Your task to perform on an android device: change the clock display to digital Image 0: 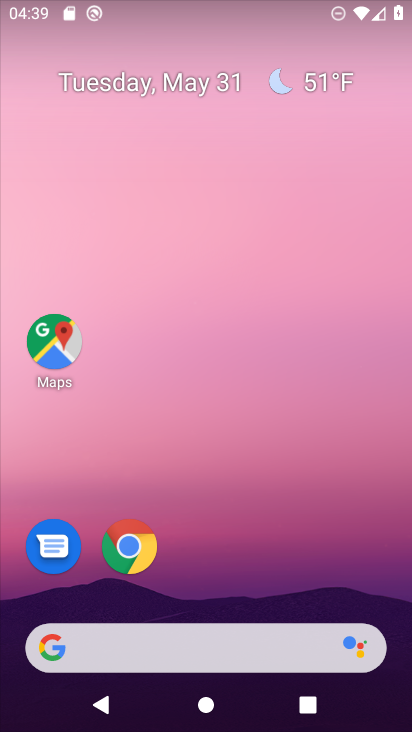
Step 0: drag from (216, 572) to (252, 243)
Your task to perform on an android device: change the clock display to digital Image 1: 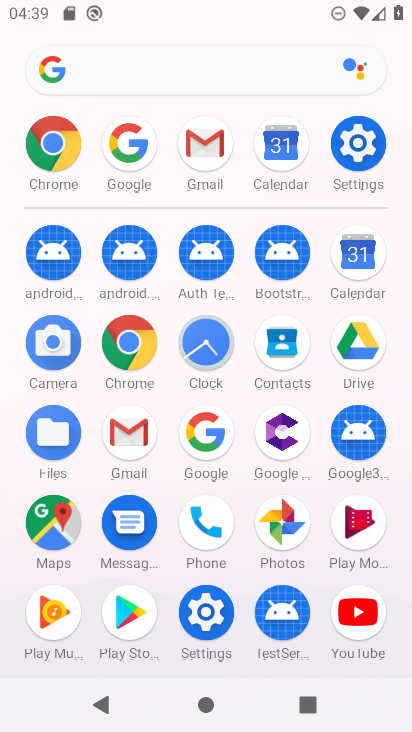
Step 1: click (362, 143)
Your task to perform on an android device: change the clock display to digital Image 2: 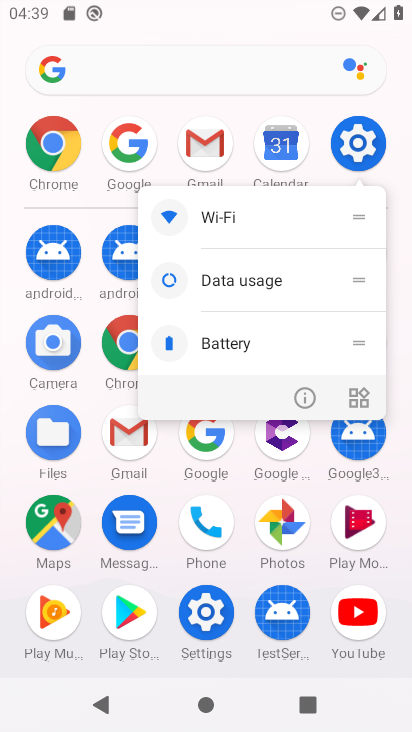
Step 2: click (362, 143)
Your task to perform on an android device: change the clock display to digital Image 3: 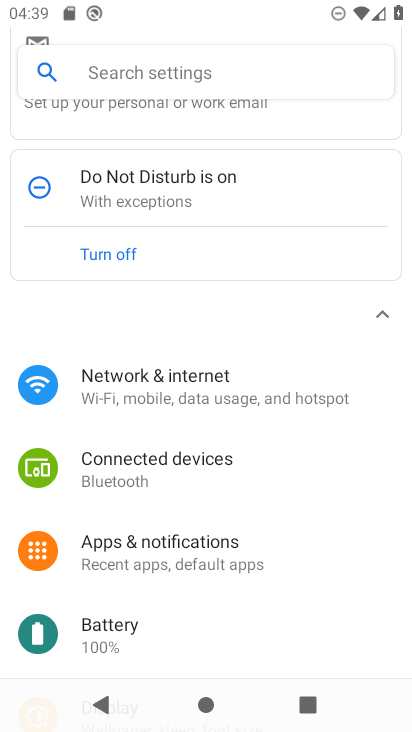
Step 3: drag from (167, 629) to (181, 433)
Your task to perform on an android device: change the clock display to digital Image 4: 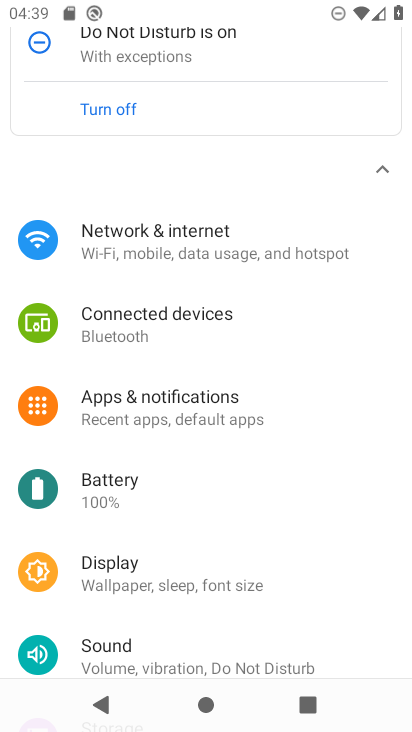
Step 4: press back button
Your task to perform on an android device: change the clock display to digital Image 5: 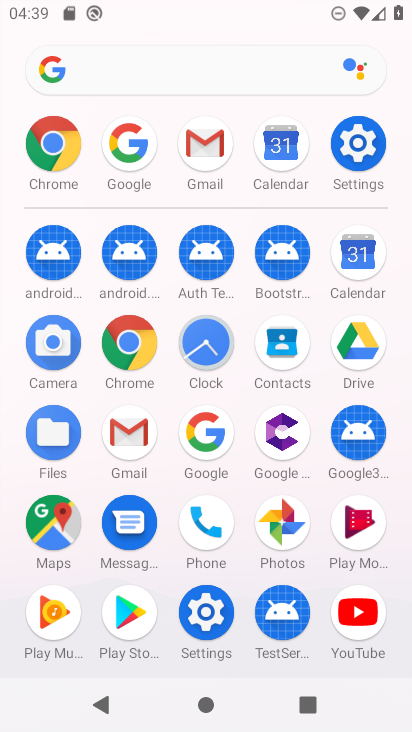
Step 5: click (200, 357)
Your task to perform on an android device: change the clock display to digital Image 6: 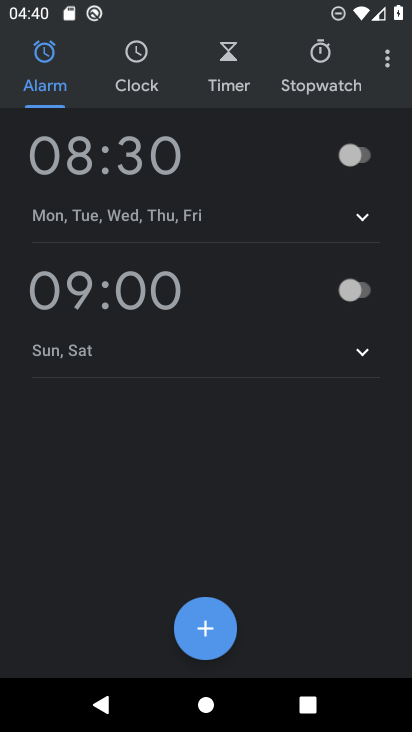
Step 6: click (385, 50)
Your task to perform on an android device: change the clock display to digital Image 7: 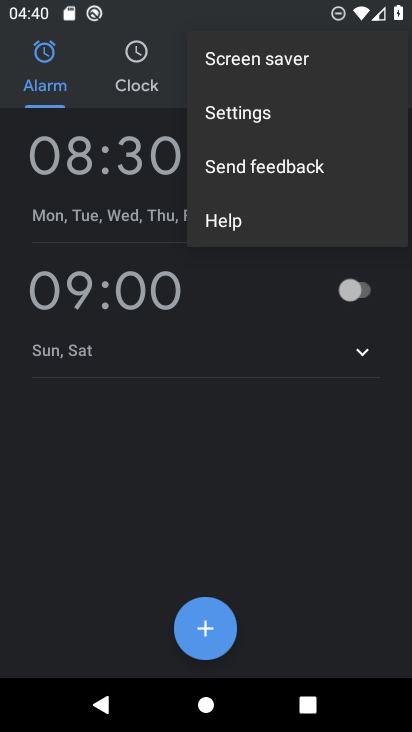
Step 7: click (280, 112)
Your task to perform on an android device: change the clock display to digital Image 8: 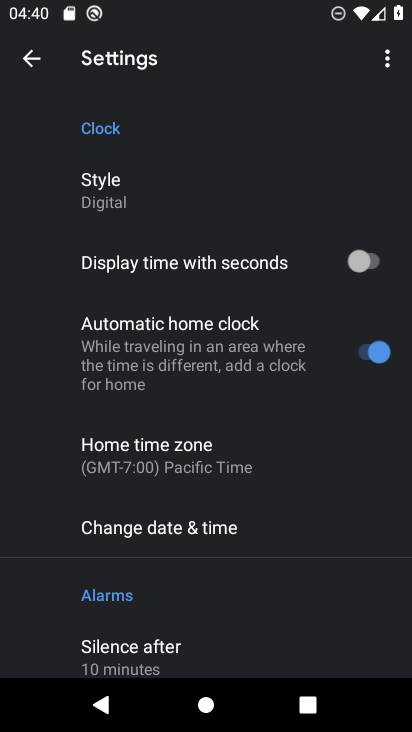
Step 8: click (164, 199)
Your task to perform on an android device: change the clock display to digital Image 9: 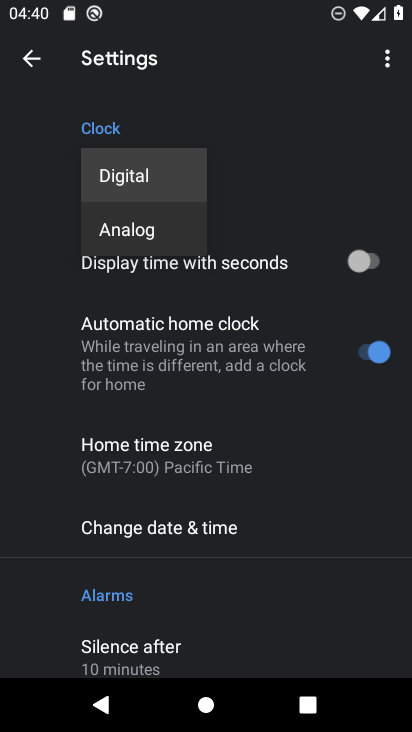
Step 9: task complete